Your task to perform on an android device: add a label to a message in the gmail app Image 0: 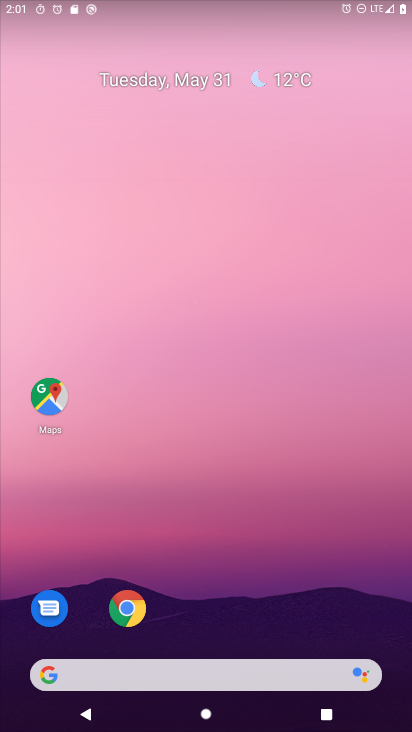
Step 0: drag from (339, 637) to (354, 26)
Your task to perform on an android device: add a label to a message in the gmail app Image 1: 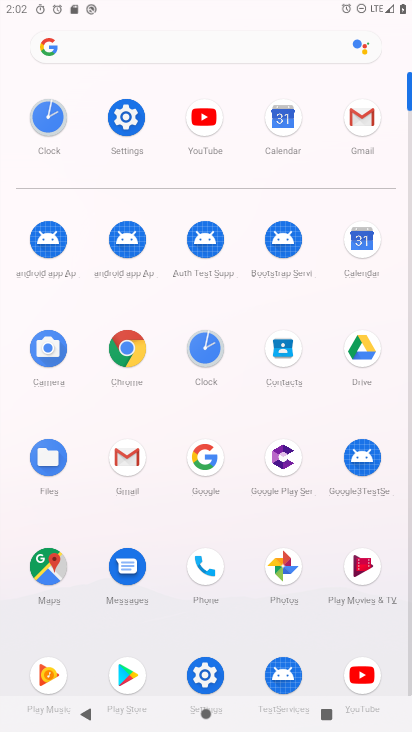
Step 1: click (361, 121)
Your task to perform on an android device: add a label to a message in the gmail app Image 2: 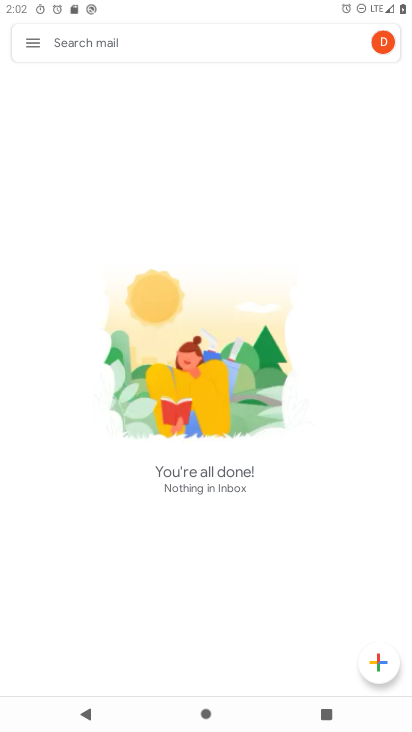
Step 2: click (28, 39)
Your task to perform on an android device: add a label to a message in the gmail app Image 3: 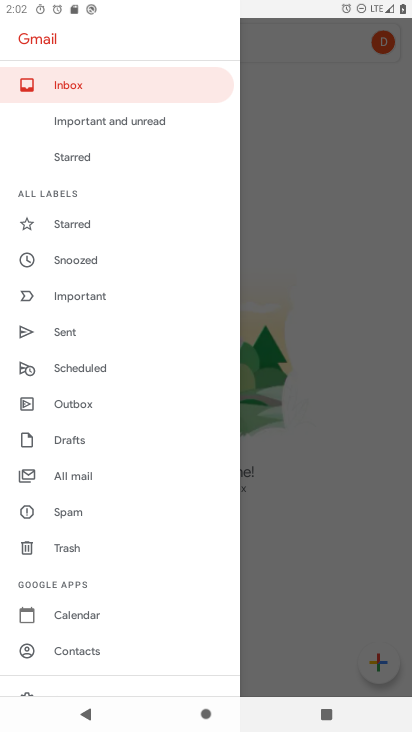
Step 3: click (90, 476)
Your task to perform on an android device: add a label to a message in the gmail app Image 4: 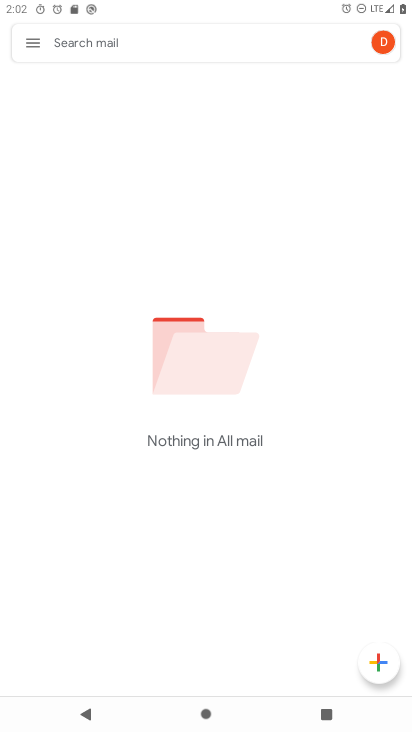
Step 4: task complete